Your task to perform on an android device: Open network settings Image 0: 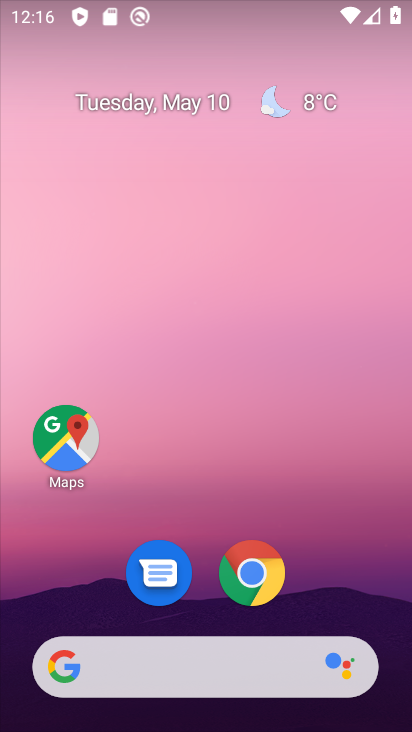
Step 0: drag from (198, 576) to (224, 211)
Your task to perform on an android device: Open network settings Image 1: 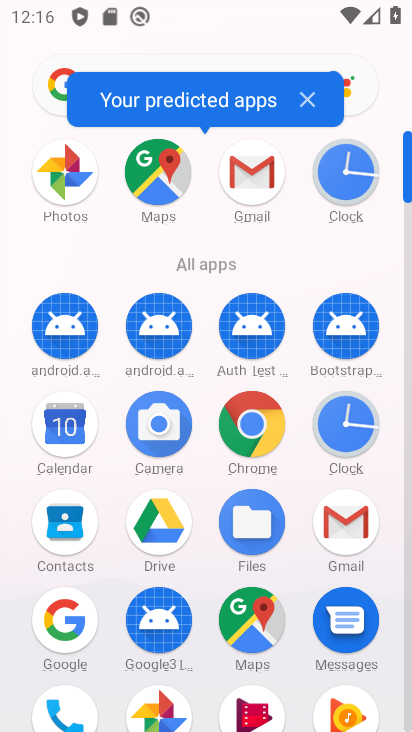
Step 1: drag from (189, 567) to (227, 94)
Your task to perform on an android device: Open network settings Image 2: 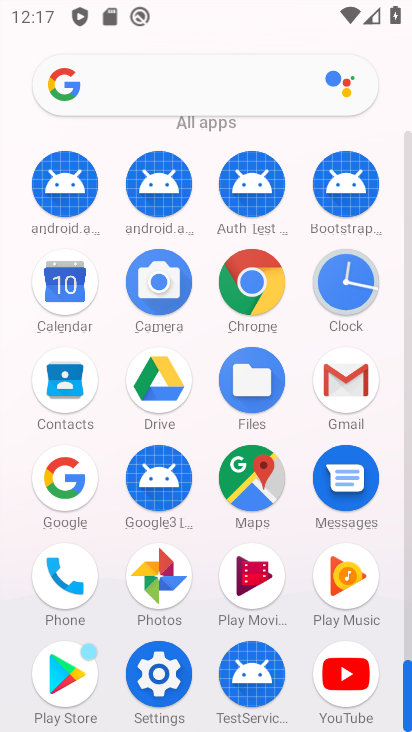
Step 2: click (165, 695)
Your task to perform on an android device: Open network settings Image 3: 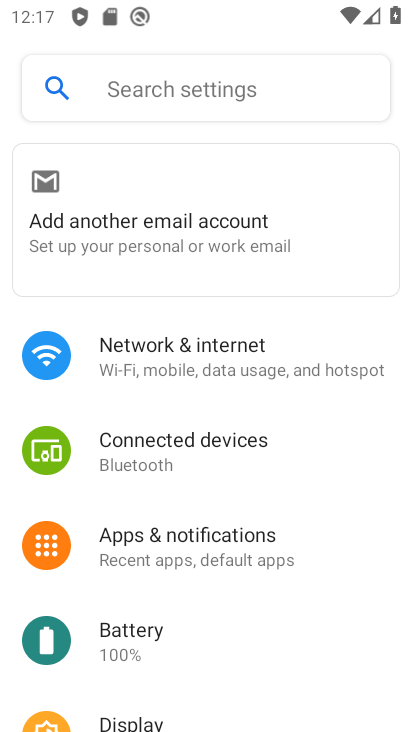
Step 3: click (202, 381)
Your task to perform on an android device: Open network settings Image 4: 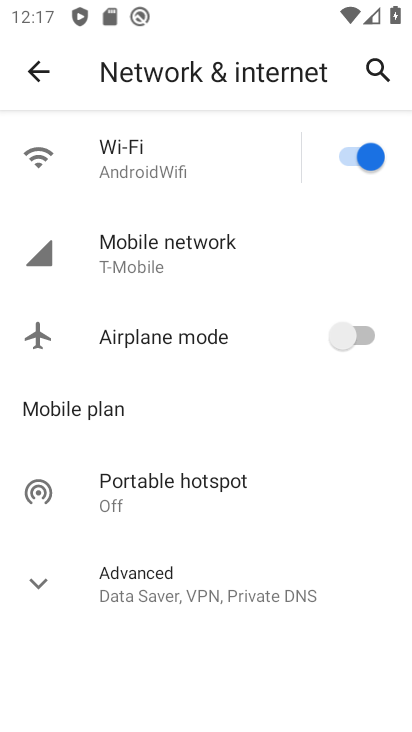
Step 4: task complete